Your task to perform on an android device: Open Wikipedia Image 0: 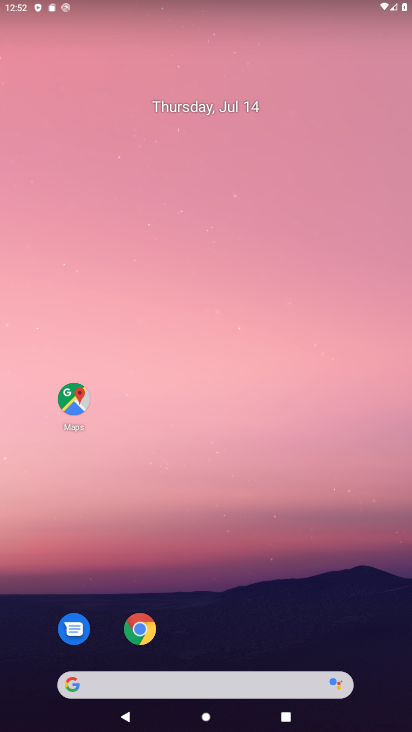
Step 0: drag from (196, 636) to (293, 190)
Your task to perform on an android device: Open Wikipedia Image 1: 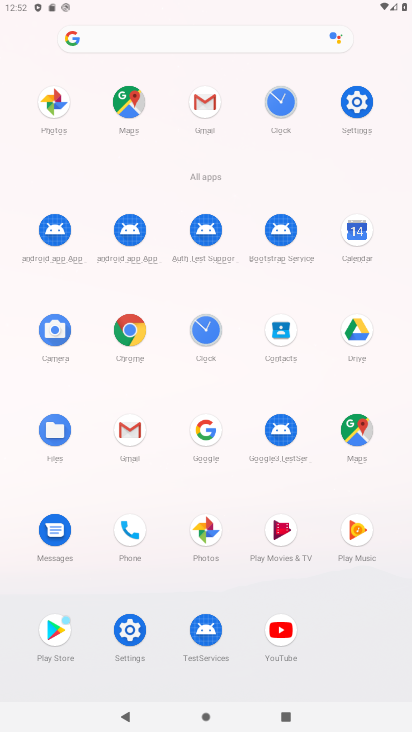
Step 1: drag from (175, 579) to (202, 312)
Your task to perform on an android device: Open Wikipedia Image 2: 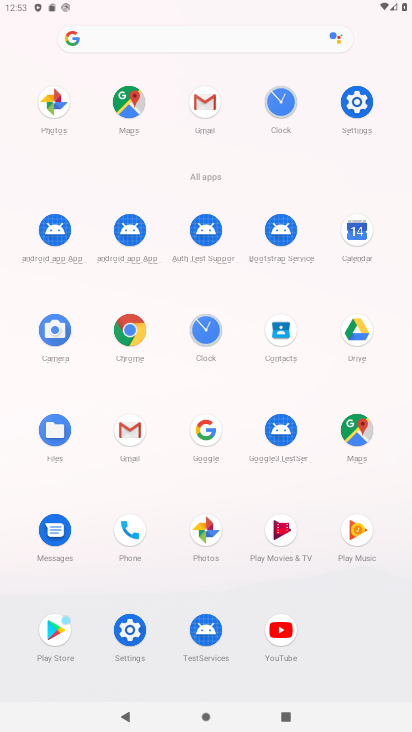
Step 2: click (123, 320)
Your task to perform on an android device: Open Wikipedia Image 3: 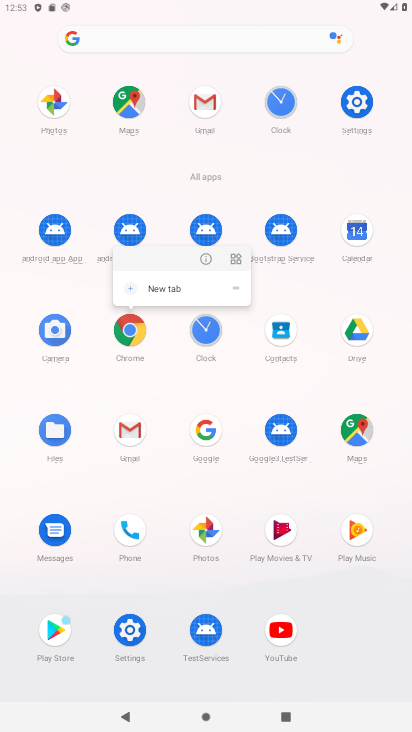
Step 3: click (207, 251)
Your task to perform on an android device: Open Wikipedia Image 4: 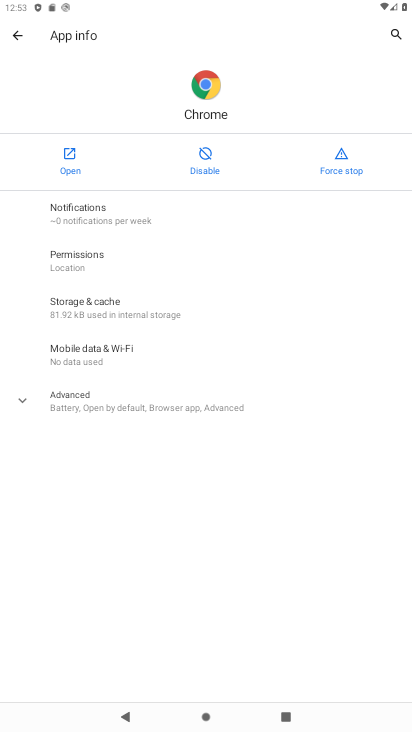
Step 4: click (58, 168)
Your task to perform on an android device: Open Wikipedia Image 5: 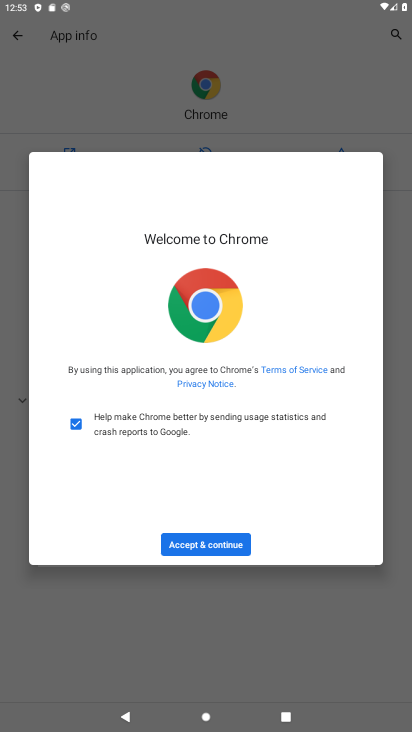
Step 5: click (203, 554)
Your task to perform on an android device: Open Wikipedia Image 6: 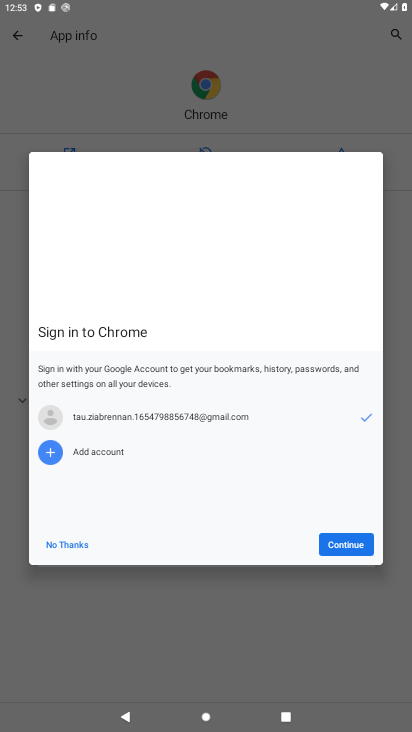
Step 6: click (326, 541)
Your task to perform on an android device: Open Wikipedia Image 7: 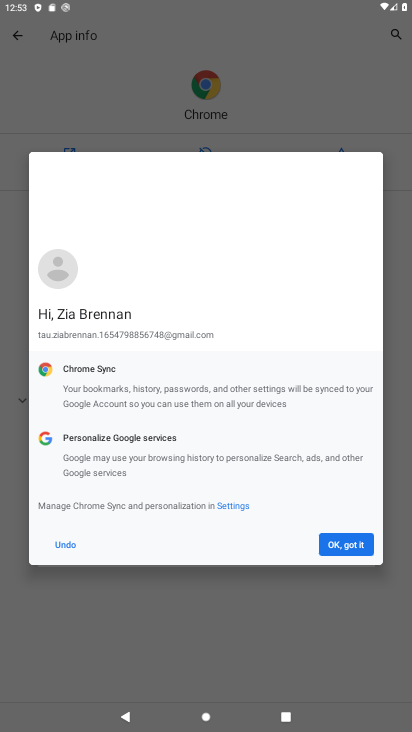
Step 7: click (336, 548)
Your task to perform on an android device: Open Wikipedia Image 8: 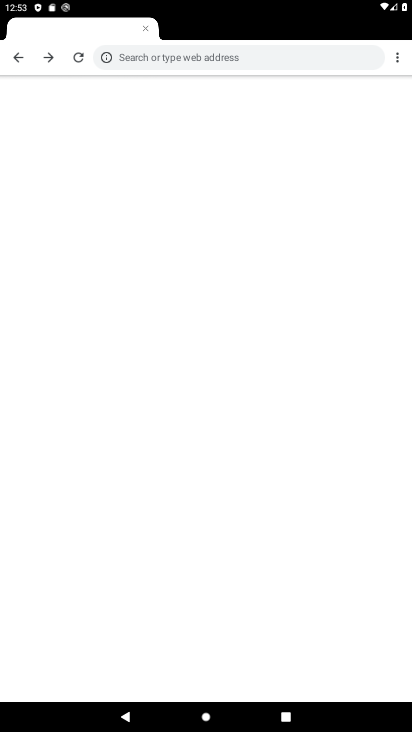
Step 8: drag from (240, 519) to (240, 157)
Your task to perform on an android device: Open Wikipedia Image 9: 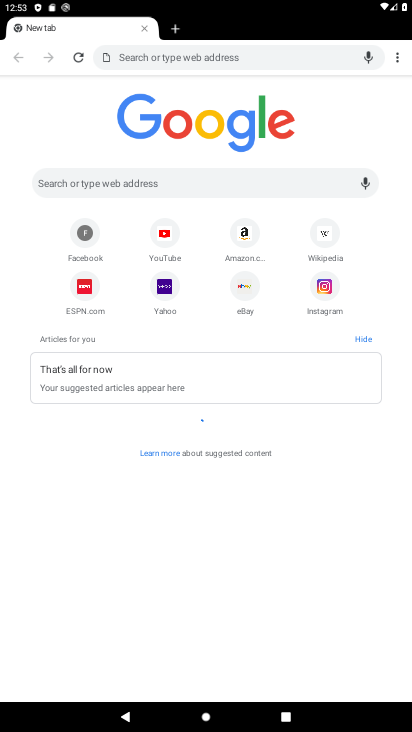
Step 9: drag from (278, 608) to (280, 355)
Your task to perform on an android device: Open Wikipedia Image 10: 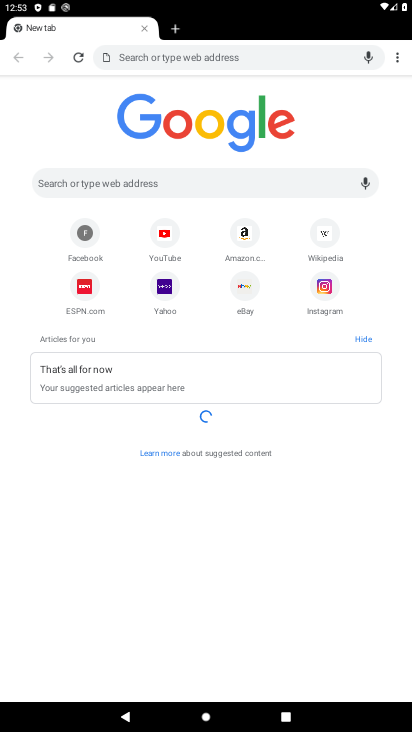
Step 10: drag from (252, 433) to (262, 364)
Your task to perform on an android device: Open Wikipedia Image 11: 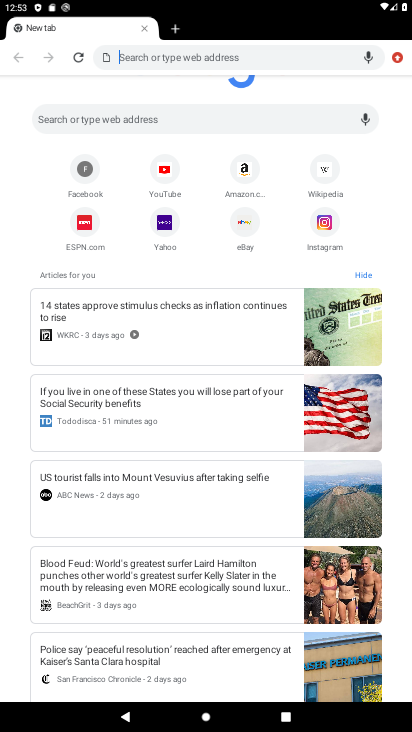
Step 11: drag from (272, 508) to (315, 218)
Your task to perform on an android device: Open Wikipedia Image 12: 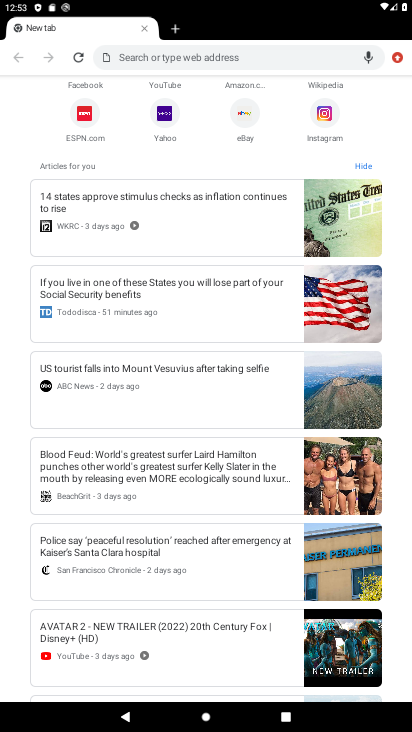
Step 12: drag from (283, 185) to (285, 583)
Your task to perform on an android device: Open Wikipedia Image 13: 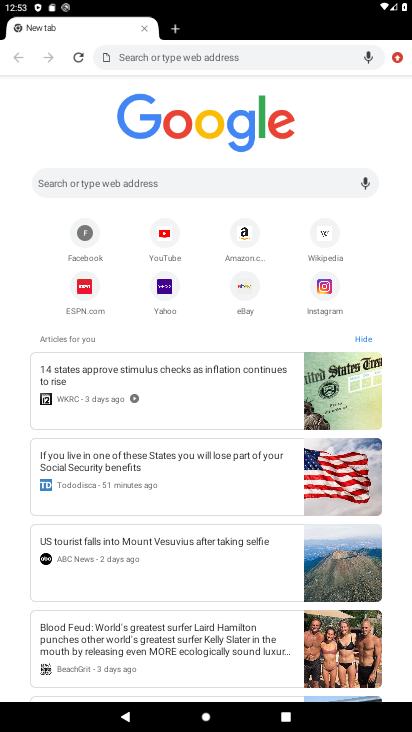
Step 13: drag from (283, 245) to (287, 490)
Your task to perform on an android device: Open Wikipedia Image 14: 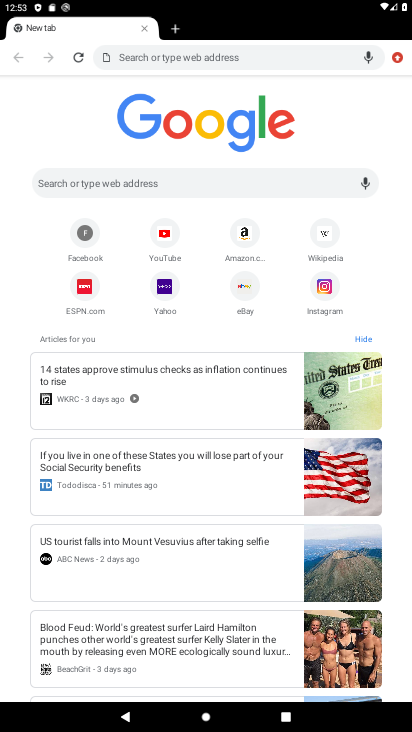
Step 14: drag from (289, 258) to (289, 580)
Your task to perform on an android device: Open Wikipedia Image 15: 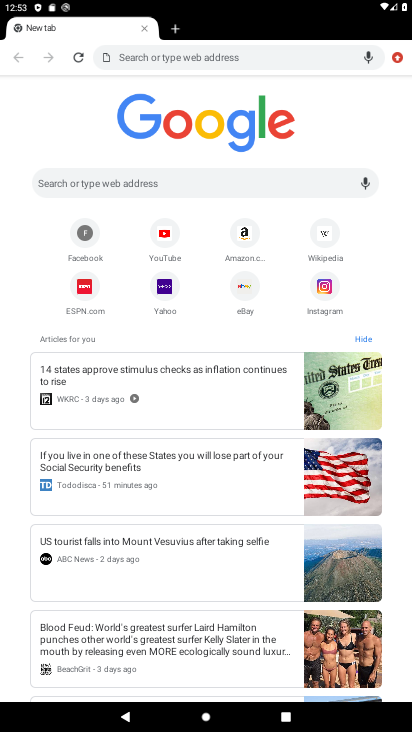
Step 15: drag from (280, 582) to (278, 347)
Your task to perform on an android device: Open Wikipedia Image 16: 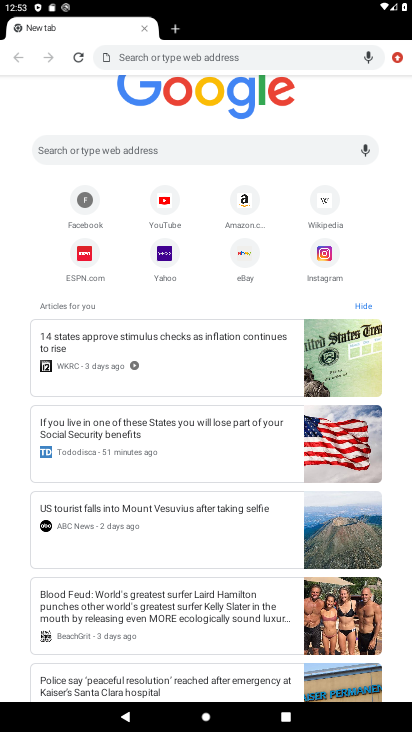
Step 16: drag from (262, 245) to (272, 531)
Your task to perform on an android device: Open Wikipedia Image 17: 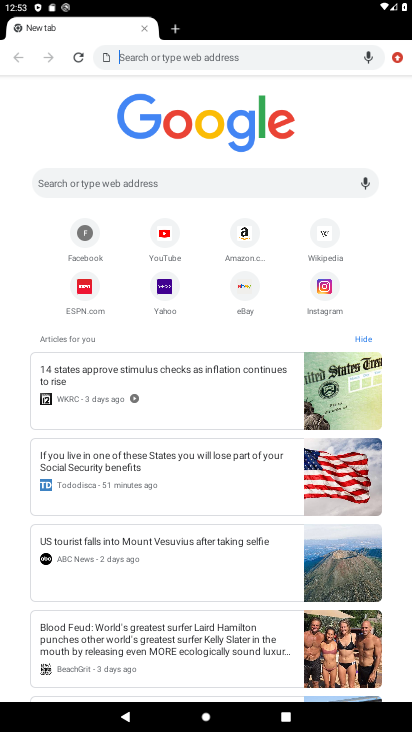
Step 17: drag from (286, 235) to (284, 78)
Your task to perform on an android device: Open Wikipedia Image 18: 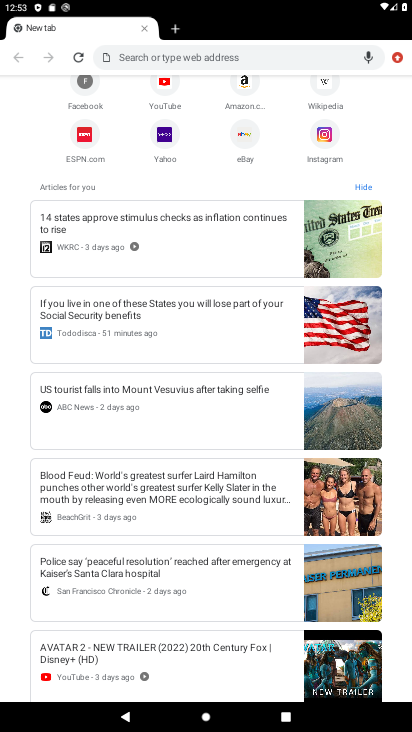
Step 18: drag from (269, 225) to (254, 435)
Your task to perform on an android device: Open Wikipedia Image 19: 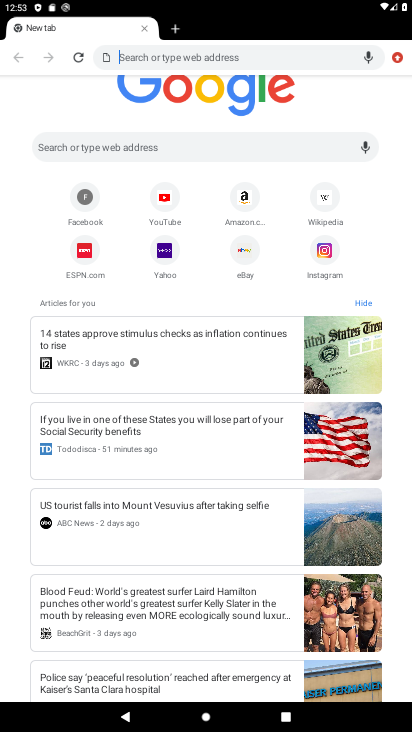
Step 19: drag from (260, 164) to (261, 376)
Your task to perform on an android device: Open Wikipedia Image 20: 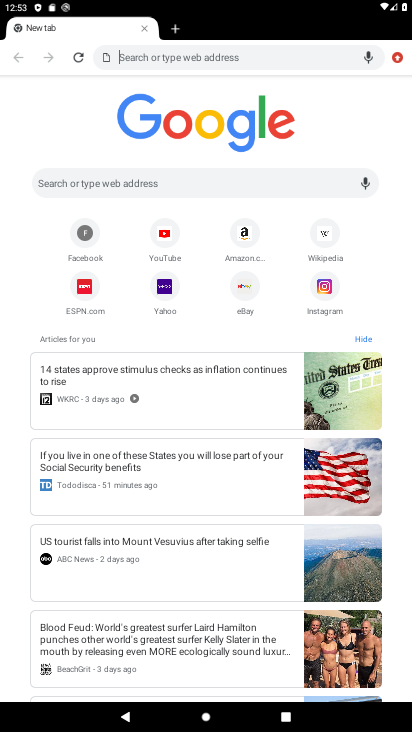
Step 20: drag from (279, 203) to (292, 435)
Your task to perform on an android device: Open Wikipedia Image 21: 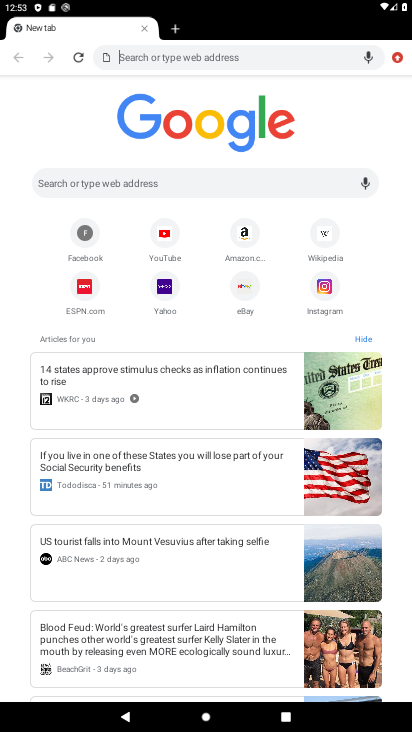
Step 21: drag from (282, 133) to (274, 509)
Your task to perform on an android device: Open Wikipedia Image 22: 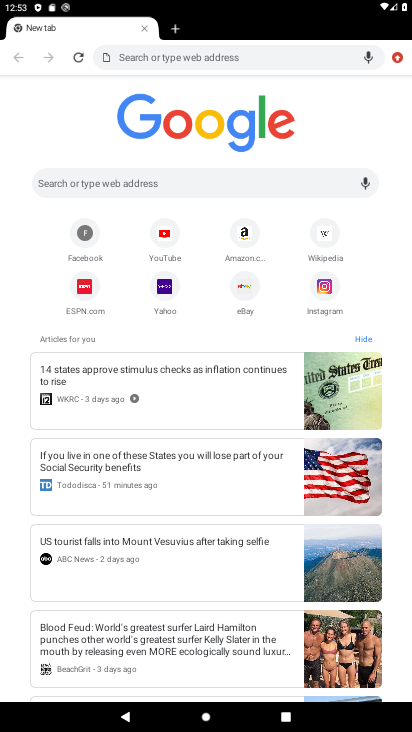
Step 22: drag from (235, 582) to (287, 221)
Your task to perform on an android device: Open Wikipedia Image 23: 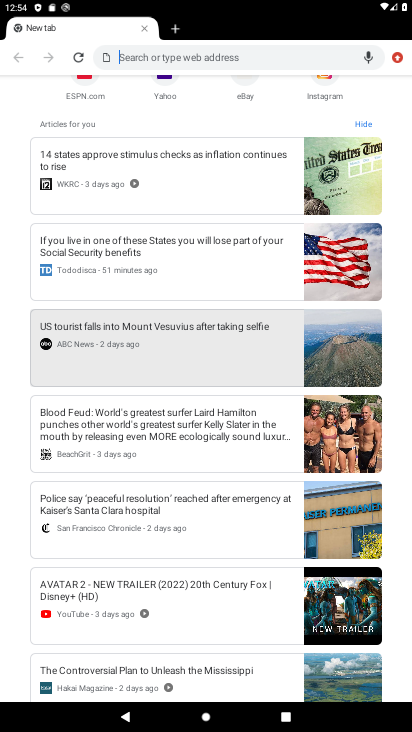
Step 23: drag from (289, 197) to (284, 517)
Your task to perform on an android device: Open Wikipedia Image 24: 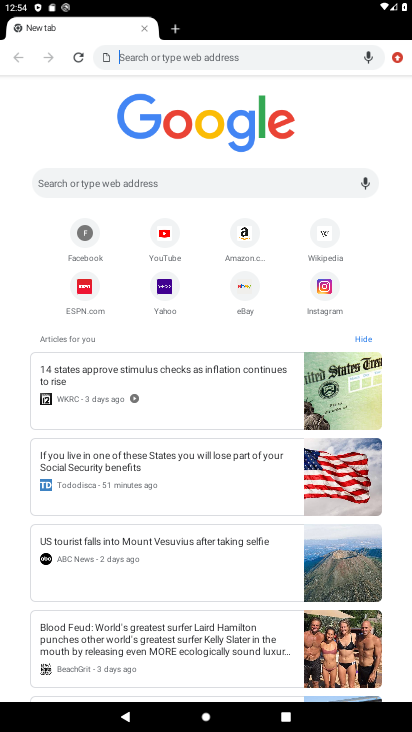
Step 24: drag from (278, 159) to (293, 621)
Your task to perform on an android device: Open Wikipedia Image 25: 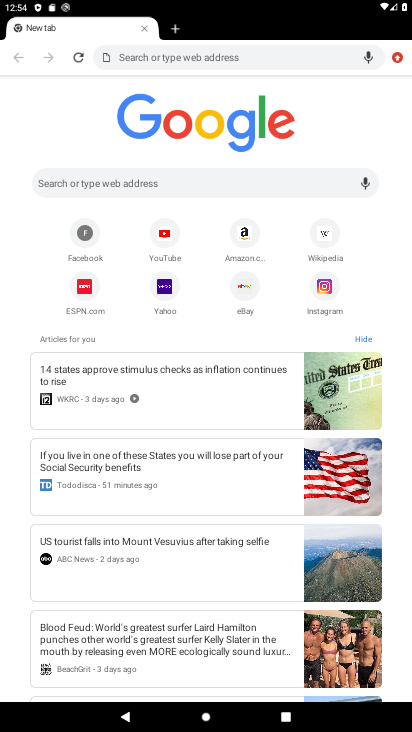
Step 25: click (170, 58)
Your task to perform on an android device: Open Wikipedia Image 26: 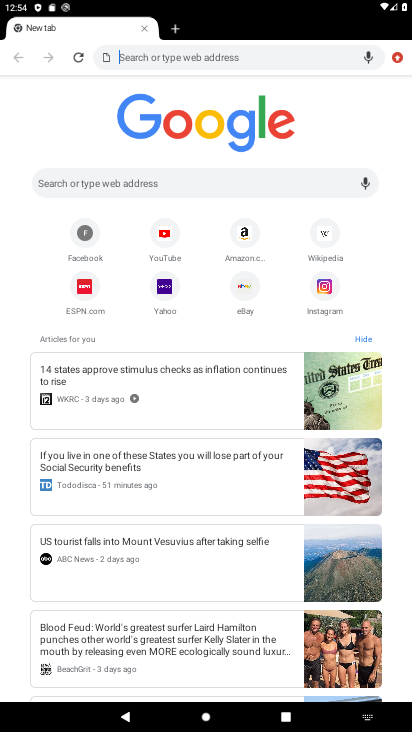
Step 26: type "wikepedia"
Your task to perform on an android device: Open Wikipedia Image 27: 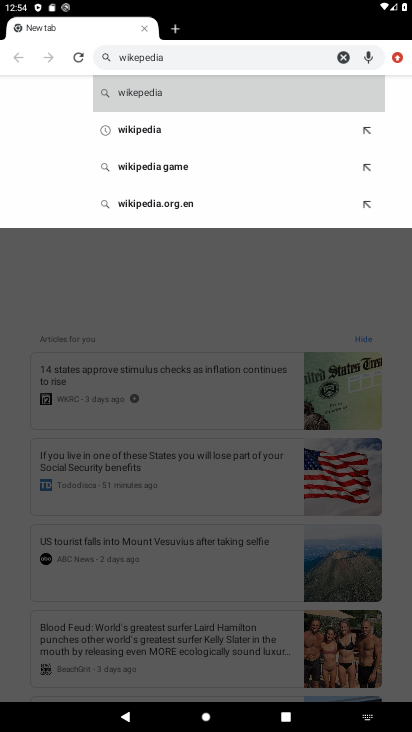
Step 27: click (125, 93)
Your task to perform on an android device: Open Wikipedia Image 28: 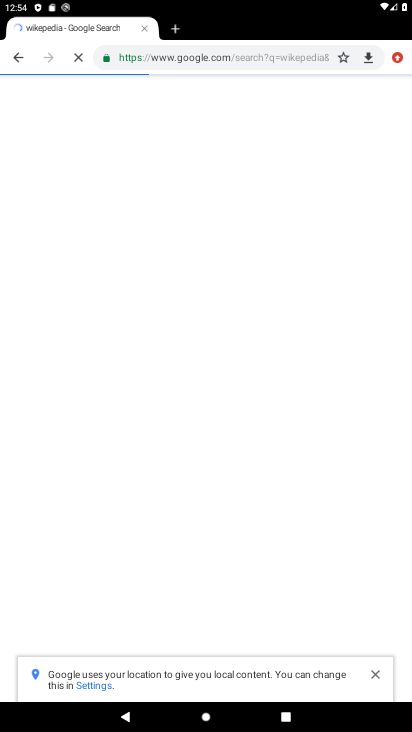
Step 28: drag from (208, 417) to (208, 231)
Your task to perform on an android device: Open Wikipedia Image 29: 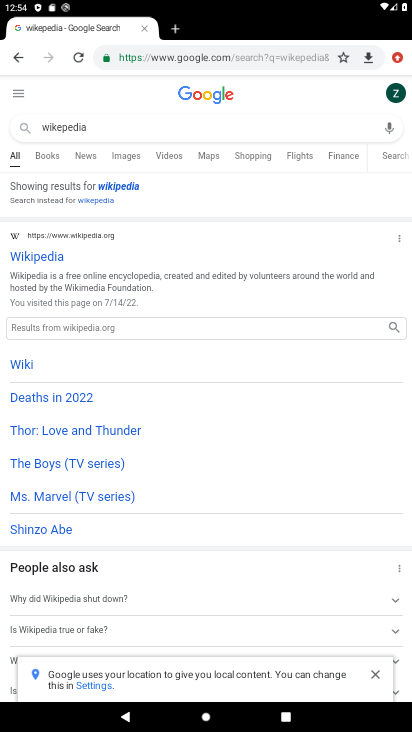
Step 29: drag from (167, 390) to (167, 325)
Your task to perform on an android device: Open Wikipedia Image 30: 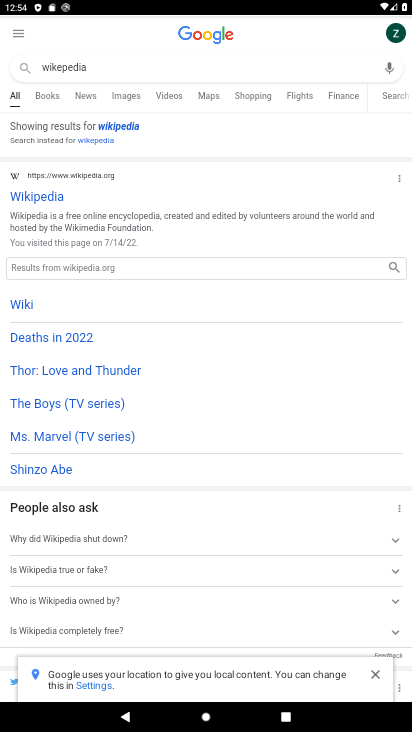
Step 30: drag from (157, 252) to (164, 538)
Your task to perform on an android device: Open Wikipedia Image 31: 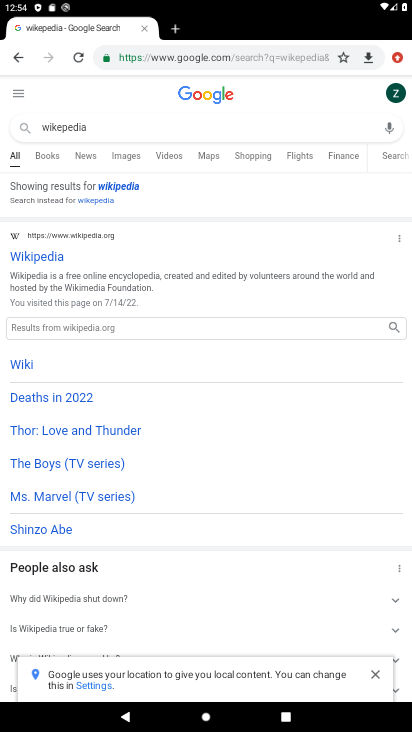
Step 31: drag from (162, 281) to (215, 600)
Your task to perform on an android device: Open Wikipedia Image 32: 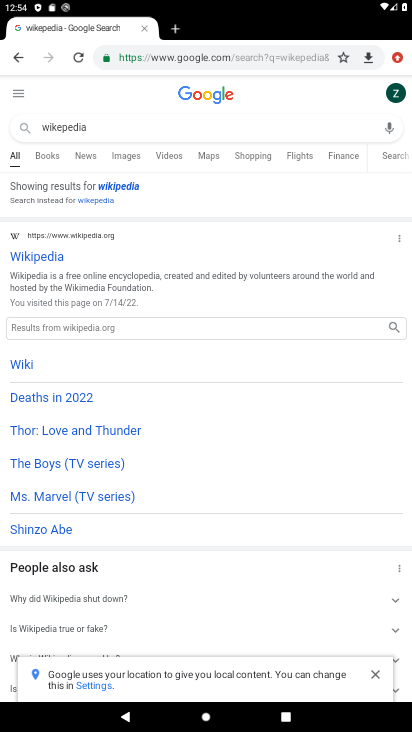
Step 32: drag from (179, 251) to (218, 442)
Your task to perform on an android device: Open Wikipedia Image 33: 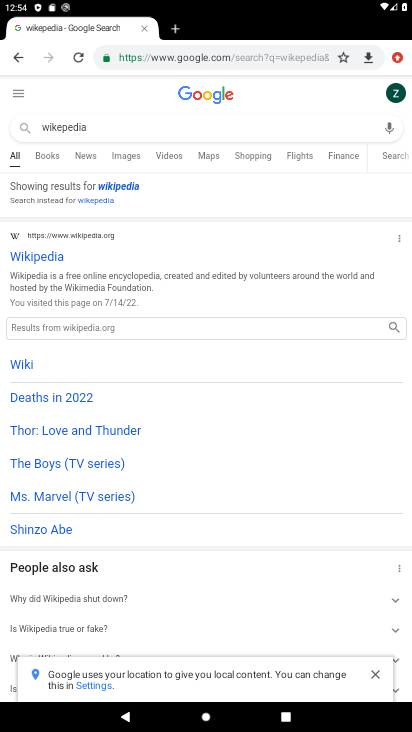
Step 33: drag from (139, 274) to (182, 349)
Your task to perform on an android device: Open Wikipedia Image 34: 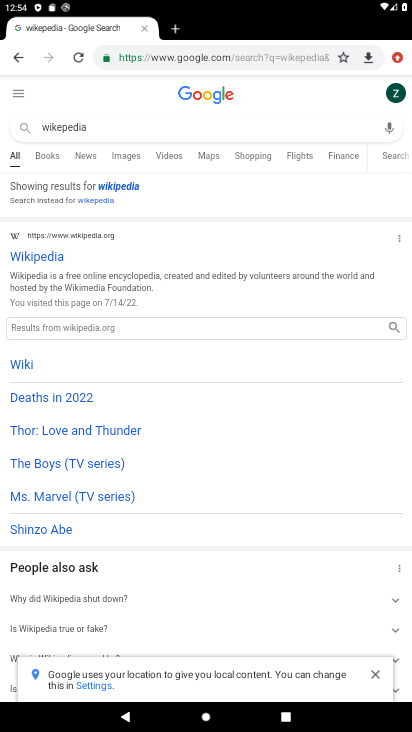
Step 34: drag from (146, 274) to (231, 541)
Your task to perform on an android device: Open Wikipedia Image 35: 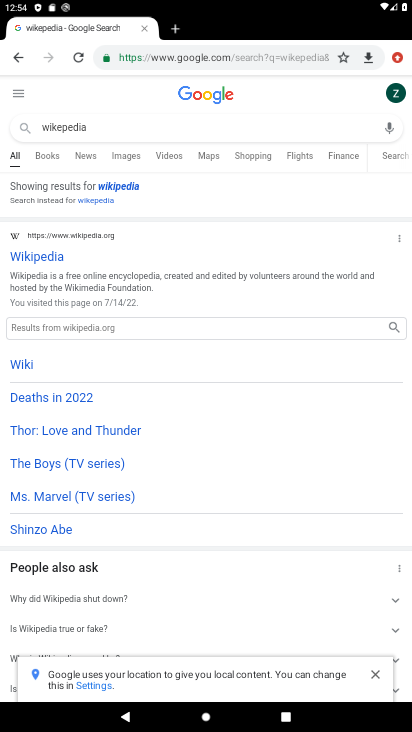
Step 35: drag from (95, 289) to (177, 400)
Your task to perform on an android device: Open Wikipedia Image 36: 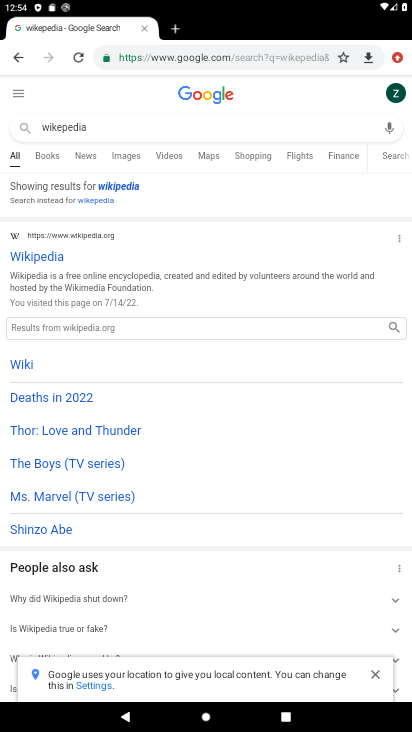
Step 36: drag from (145, 275) to (274, 646)
Your task to perform on an android device: Open Wikipedia Image 37: 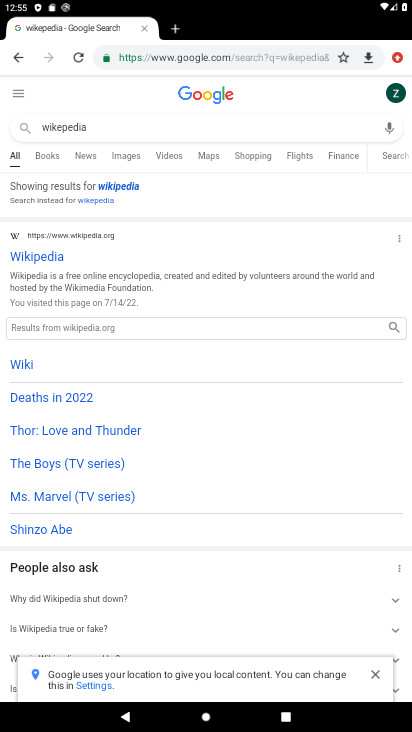
Step 37: click (49, 264)
Your task to perform on an android device: Open Wikipedia Image 38: 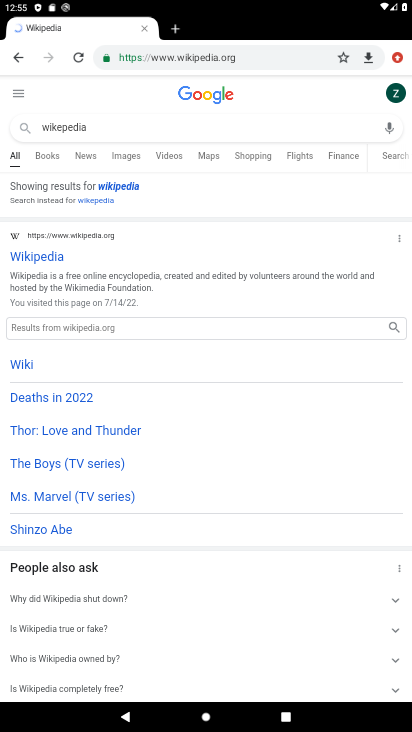
Step 38: task complete